Your task to perform on an android device: Show me popular videos on Youtube Image 0: 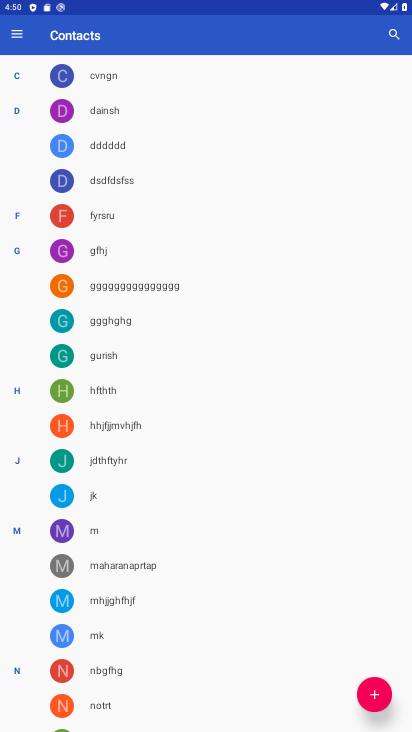
Step 0: press home button
Your task to perform on an android device: Show me popular videos on Youtube Image 1: 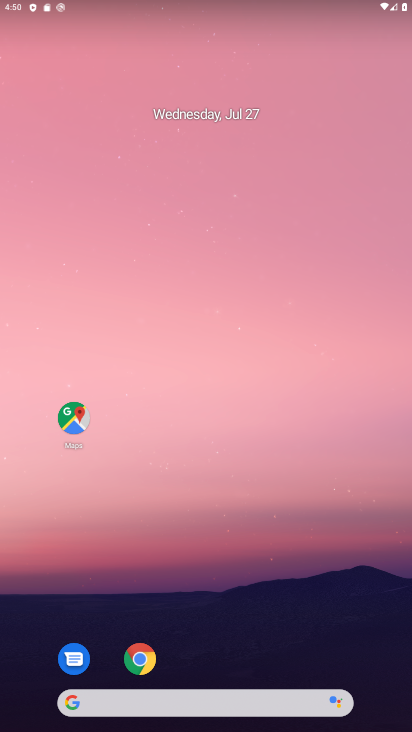
Step 1: drag from (277, 639) to (338, 180)
Your task to perform on an android device: Show me popular videos on Youtube Image 2: 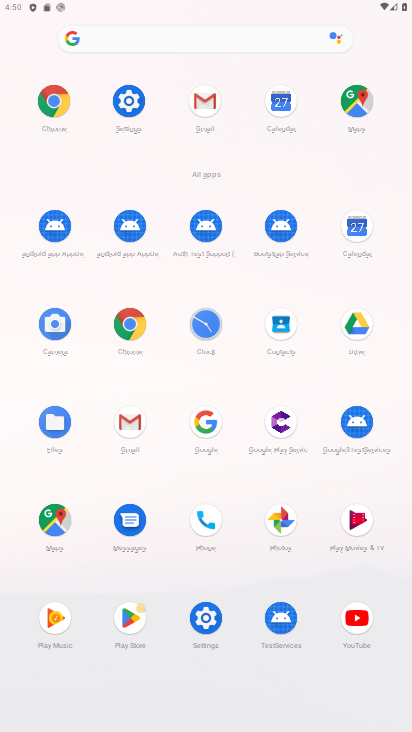
Step 2: click (359, 616)
Your task to perform on an android device: Show me popular videos on Youtube Image 3: 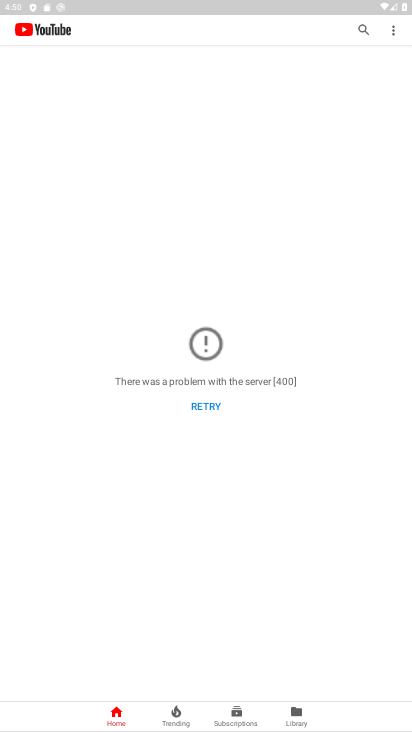
Step 3: task complete